Your task to perform on an android device: Open Chrome and go to settings Image 0: 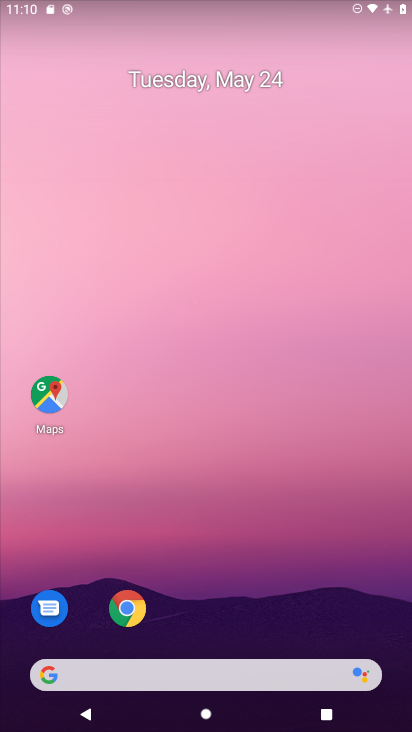
Step 0: click (131, 607)
Your task to perform on an android device: Open Chrome and go to settings Image 1: 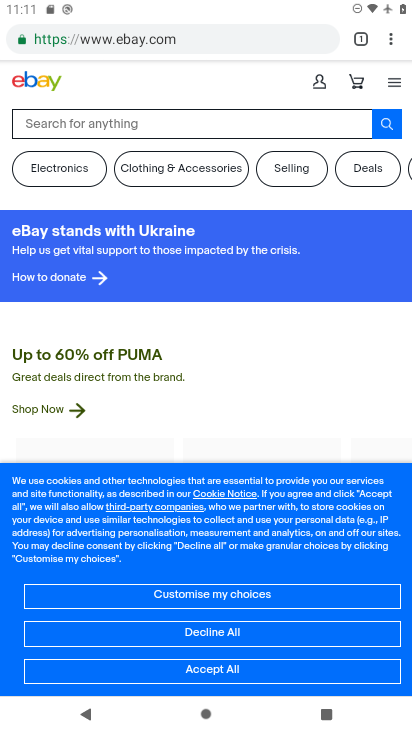
Step 1: click (391, 44)
Your task to perform on an android device: Open Chrome and go to settings Image 2: 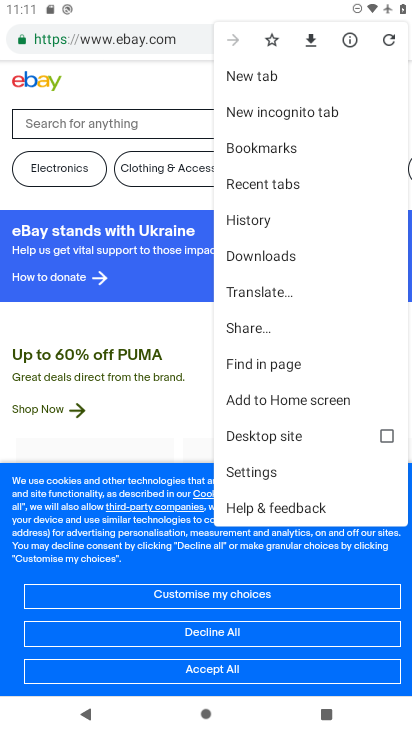
Step 2: click (257, 471)
Your task to perform on an android device: Open Chrome and go to settings Image 3: 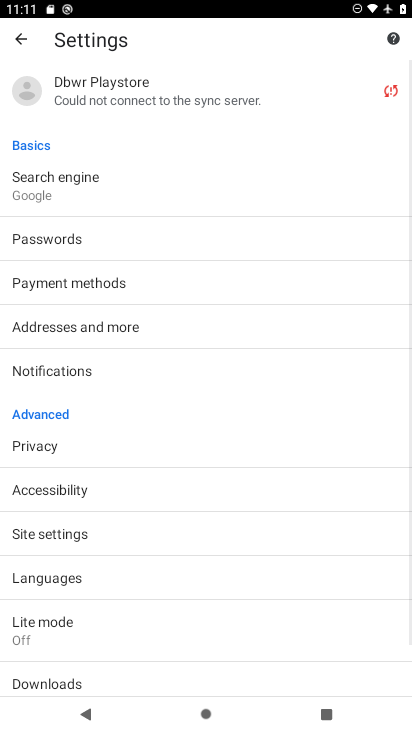
Step 3: task complete